Your task to perform on an android device: install app "DoorDash - Dasher" Image 0: 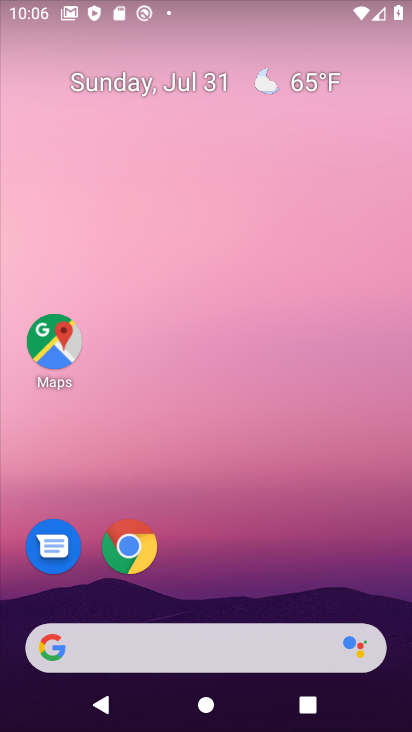
Step 0: drag from (309, 529) to (315, 26)
Your task to perform on an android device: install app "DoorDash - Dasher" Image 1: 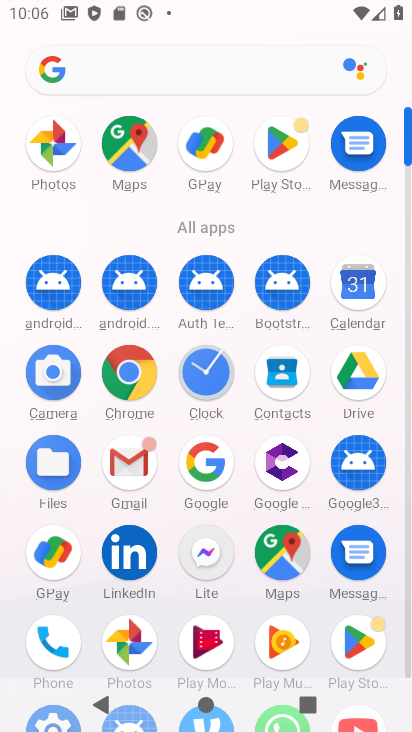
Step 1: click (267, 148)
Your task to perform on an android device: install app "DoorDash - Dasher" Image 2: 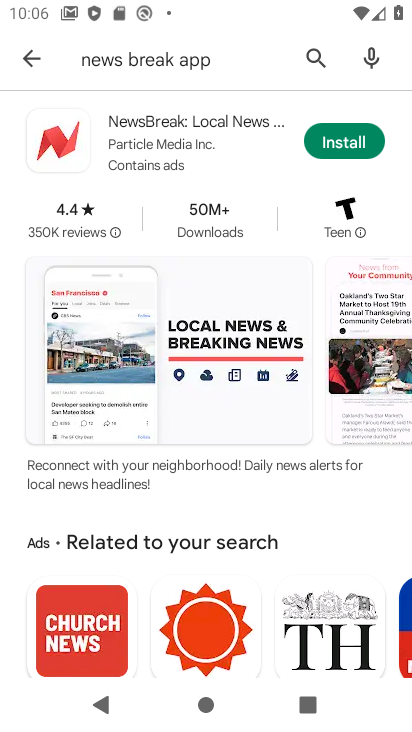
Step 2: click (319, 54)
Your task to perform on an android device: install app "DoorDash - Dasher" Image 3: 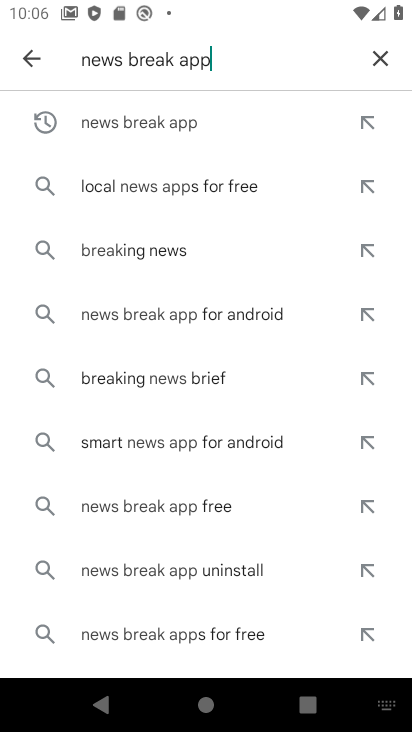
Step 3: click (385, 54)
Your task to perform on an android device: install app "DoorDash - Dasher" Image 4: 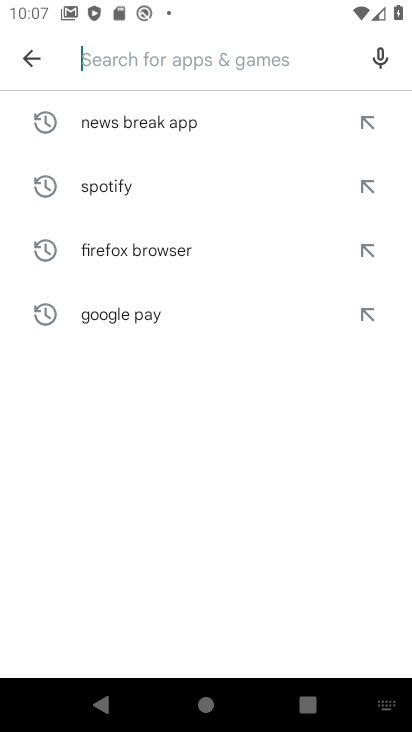
Step 4: click (238, 59)
Your task to perform on an android device: install app "DoorDash - Dasher" Image 5: 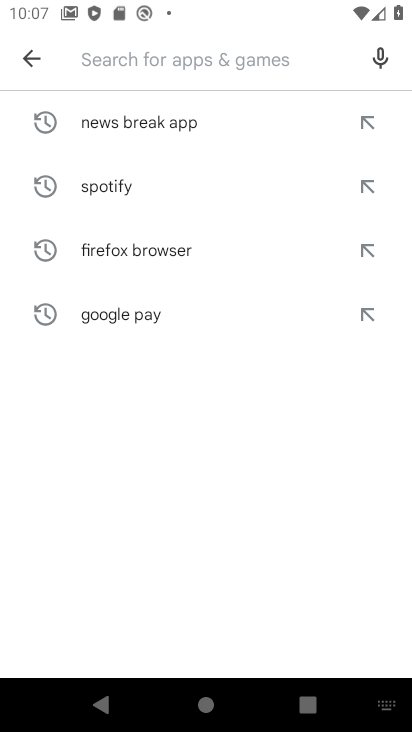
Step 5: type "doordash"
Your task to perform on an android device: install app "DoorDash - Dasher" Image 6: 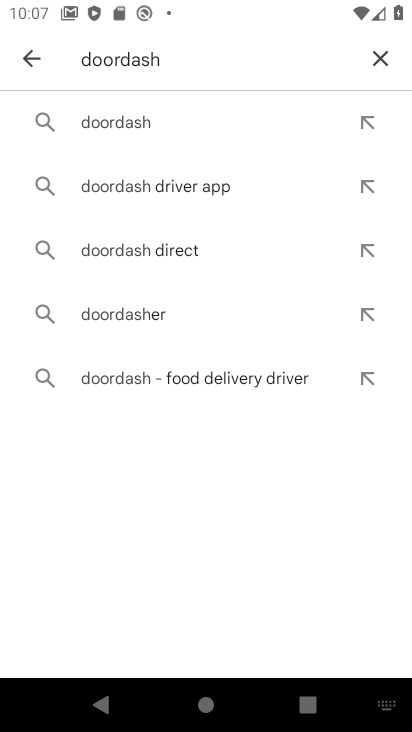
Step 6: click (167, 119)
Your task to perform on an android device: install app "DoorDash - Dasher" Image 7: 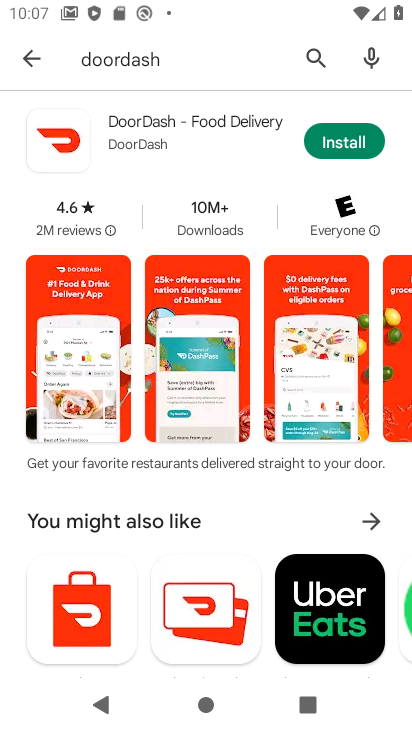
Step 7: drag from (108, 481) to (155, 203)
Your task to perform on an android device: install app "DoorDash - Dasher" Image 8: 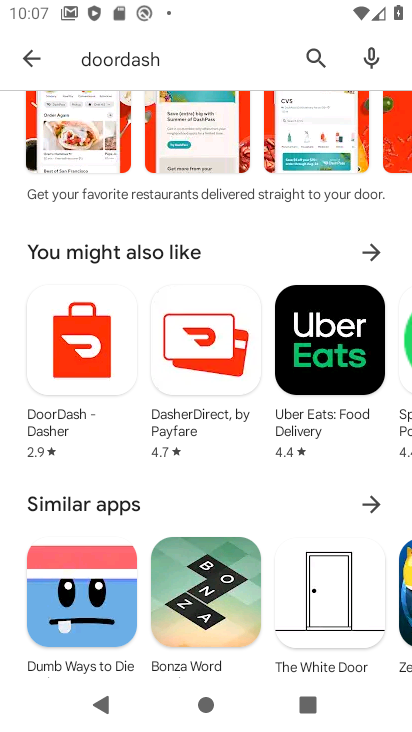
Step 8: click (68, 336)
Your task to perform on an android device: install app "DoorDash - Dasher" Image 9: 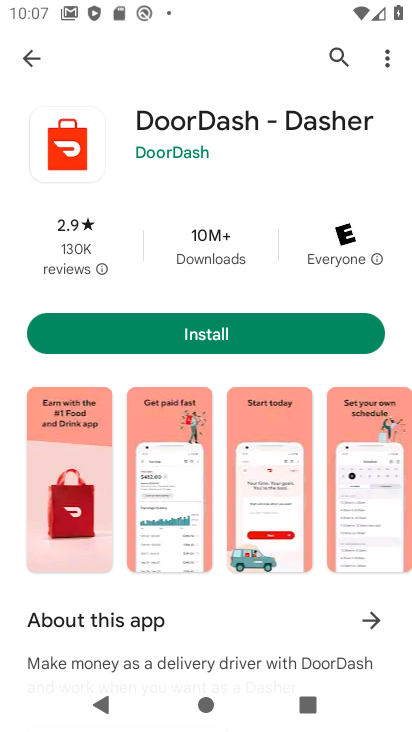
Step 9: click (124, 336)
Your task to perform on an android device: install app "DoorDash - Dasher" Image 10: 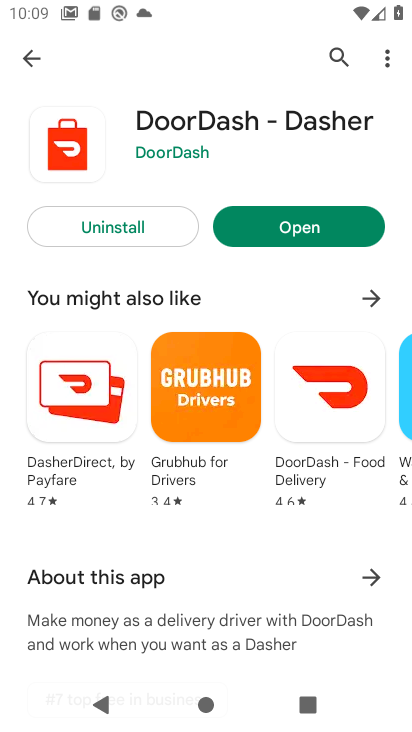
Step 10: task complete